Your task to perform on an android device: Go to notification settings Image 0: 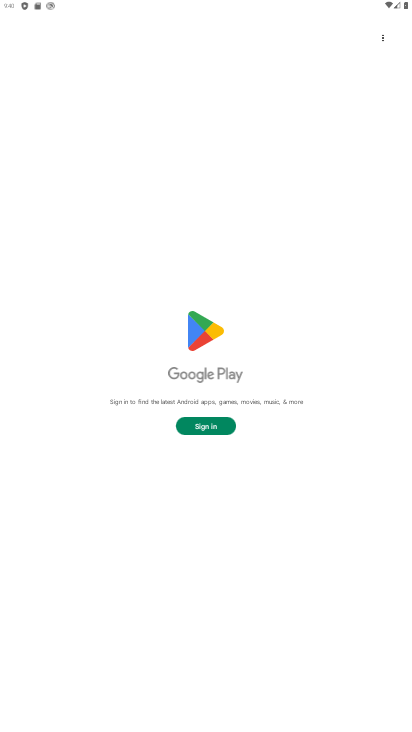
Step 0: press home button
Your task to perform on an android device: Go to notification settings Image 1: 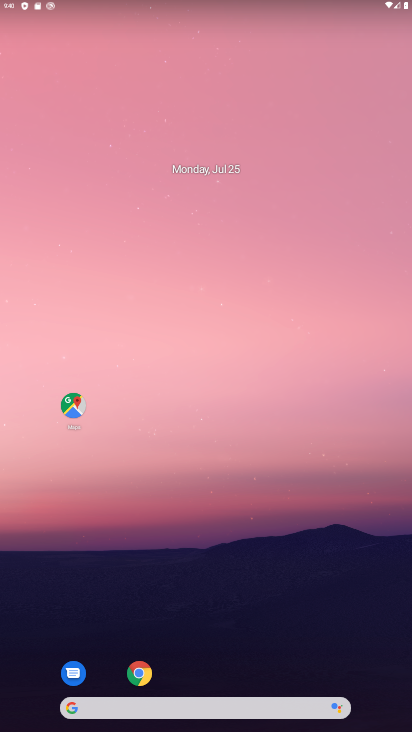
Step 1: drag from (293, 661) to (330, 2)
Your task to perform on an android device: Go to notification settings Image 2: 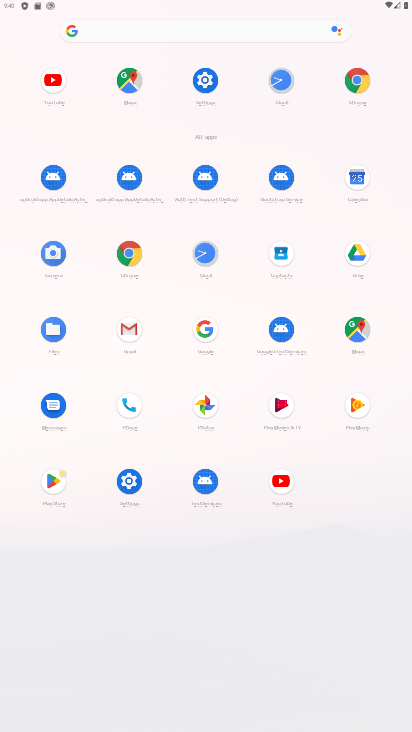
Step 2: click (127, 479)
Your task to perform on an android device: Go to notification settings Image 3: 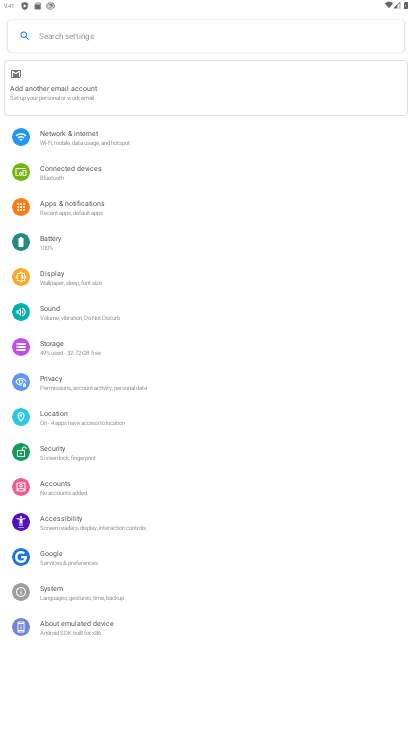
Step 3: click (86, 204)
Your task to perform on an android device: Go to notification settings Image 4: 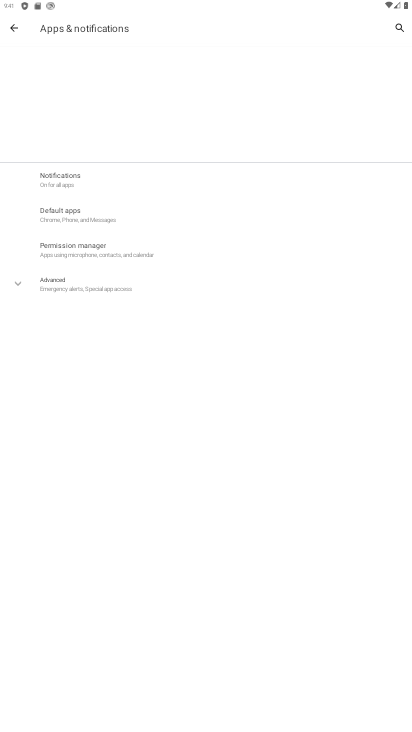
Step 4: click (68, 182)
Your task to perform on an android device: Go to notification settings Image 5: 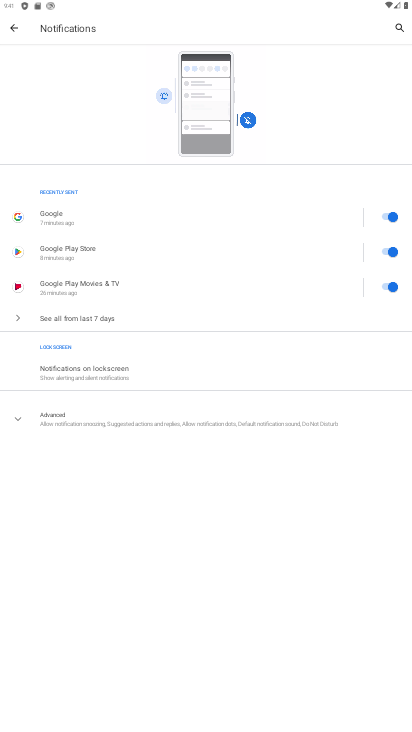
Step 5: task complete